Your task to perform on an android device: open sync settings in chrome Image 0: 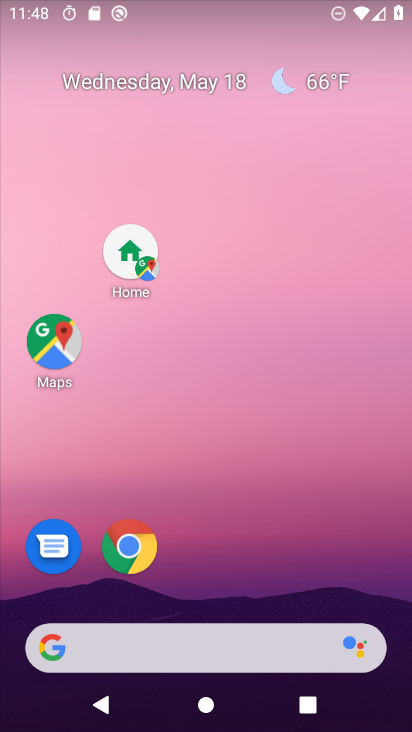
Step 0: click (121, 532)
Your task to perform on an android device: open sync settings in chrome Image 1: 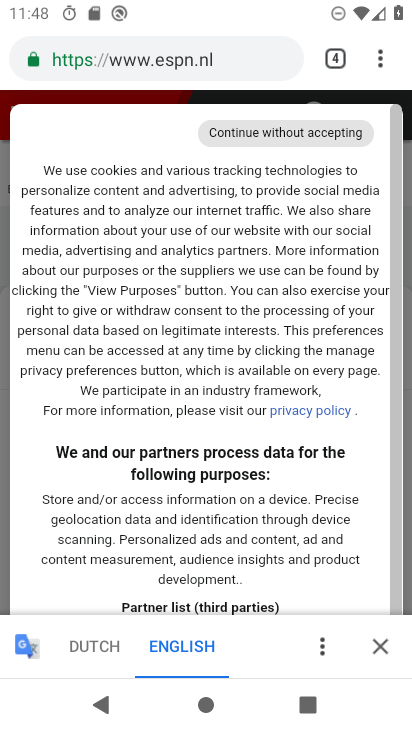
Step 1: click (388, 56)
Your task to perform on an android device: open sync settings in chrome Image 2: 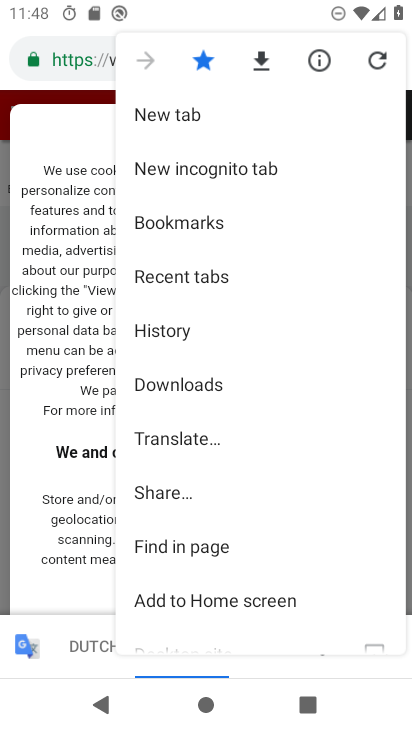
Step 2: drag from (151, 602) to (295, 142)
Your task to perform on an android device: open sync settings in chrome Image 3: 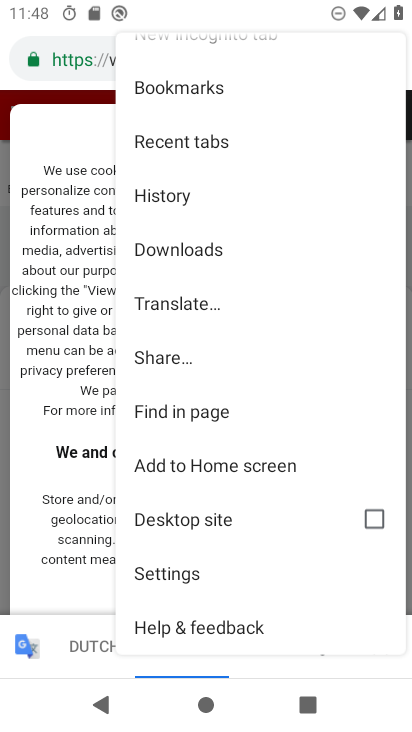
Step 3: click (150, 566)
Your task to perform on an android device: open sync settings in chrome Image 4: 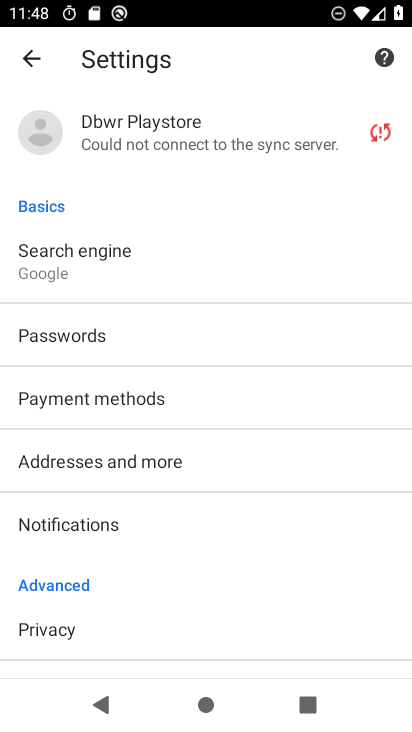
Step 4: click (135, 136)
Your task to perform on an android device: open sync settings in chrome Image 5: 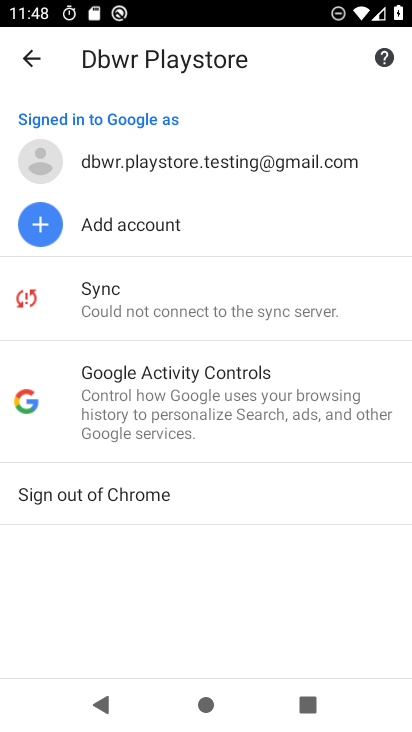
Step 5: click (97, 268)
Your task to perform on an android device: open sync settings in chrome Image 6: 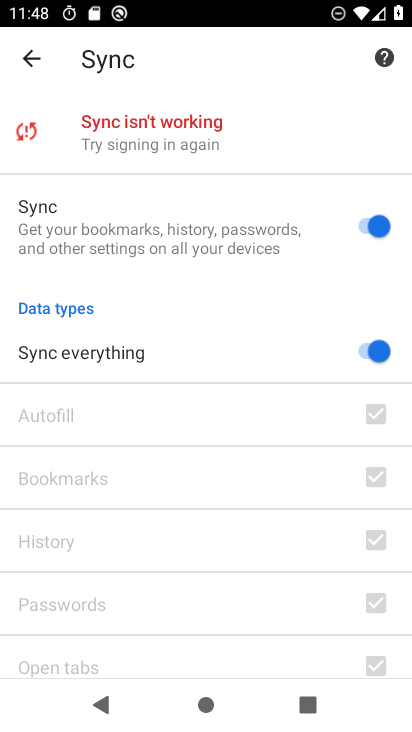
Step 6: task complete